Your task to perform on an android device: Open Google Chrome and open the bookmarks view Image 0: 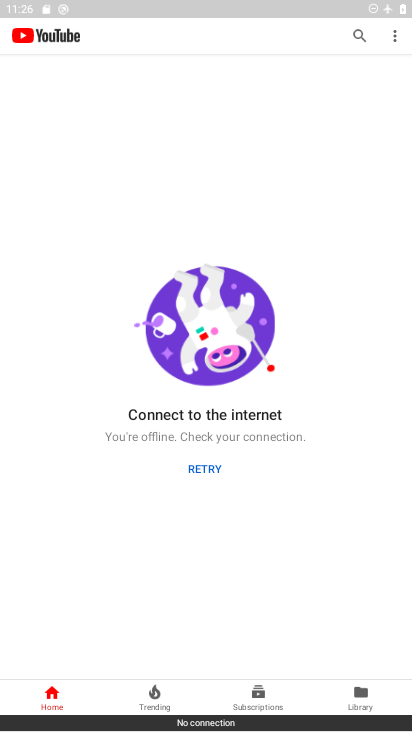
Step 0: press home button
Your task to perform on an android device: Open Google Chrome and open the bookmarks view Image 1: 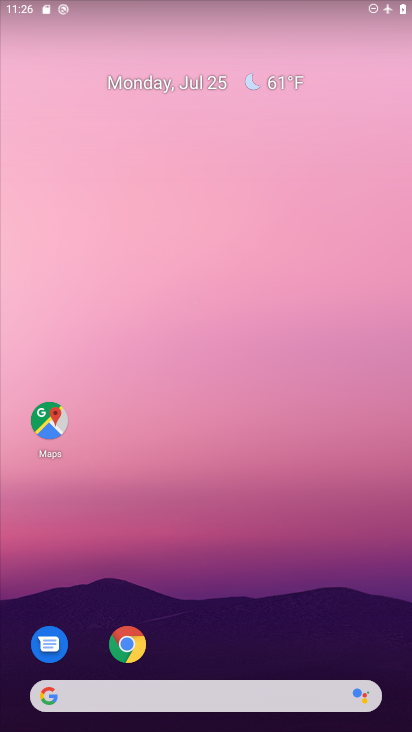
Step 1: click (122, 648)
Your task to perform on an android device: Open Google Chrome and open the bookmarks view Image 2: 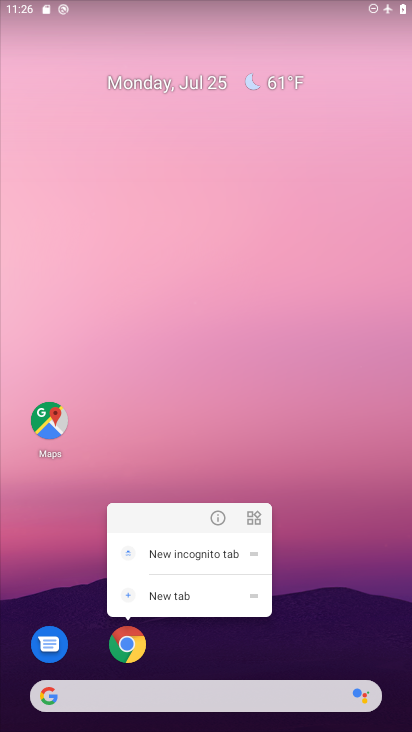
Step 2: click (122, 648)
Your task to perform on an android device: Open Google Chrome and open the bookmarks view Image 3: 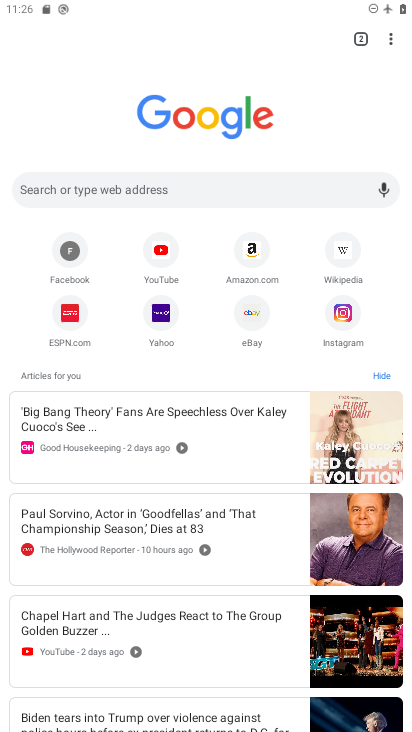
Step 3: click (395, 37)
Your task to perform on an android device: Open Google Chrome and open the bookmarks view Image 4: 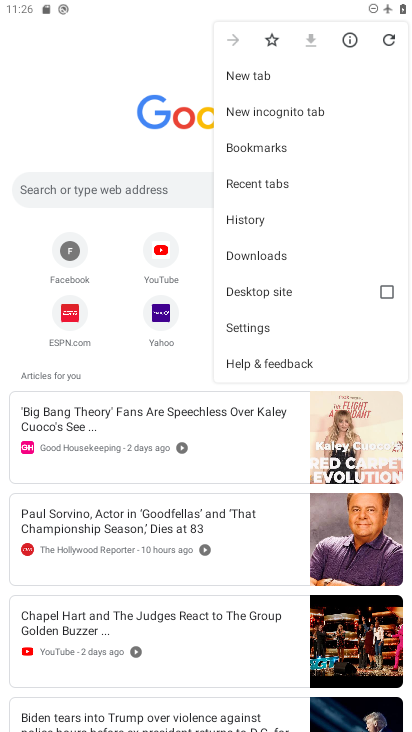
Step 4: click (287, 141)
Your task to perform on an android device: Open Google Chrome and open the bookmarks view Image 5: 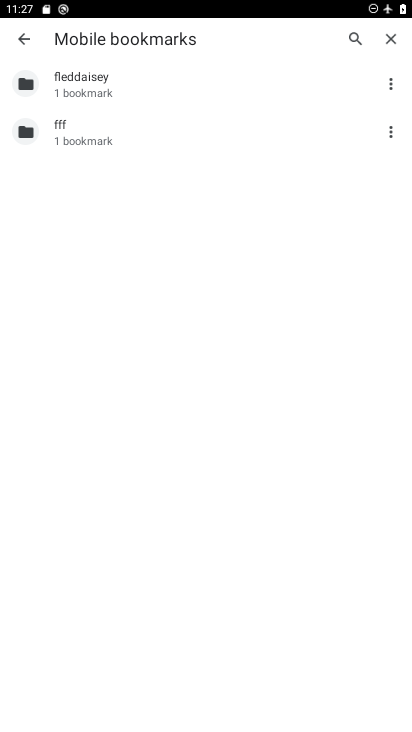
Step 5: task complete